Your task to perform on an android device: change the clock display to show seconds Image 0: 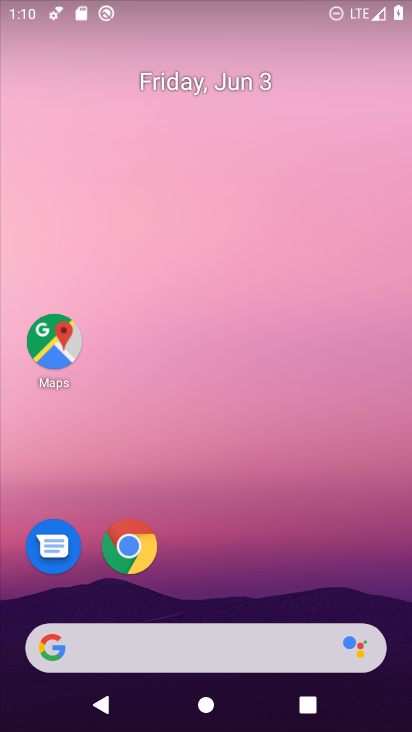
Step 0: drag from (269, 560) to (179, 69)
Your task to perform on an android device: change the clock display to show seconds Image 1: 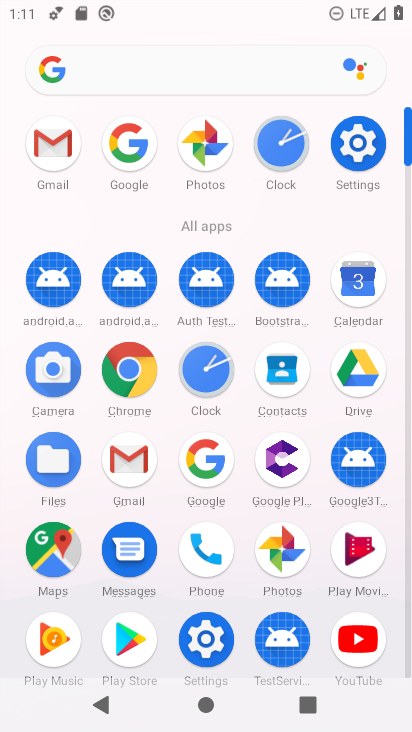
Step 1: click (282, 145)
Your task to perform on an android device: change the clock display to show seconds Image 2: 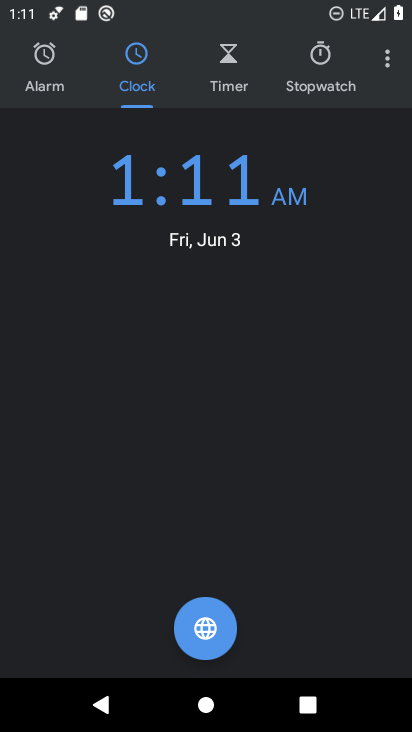
Step 2: click (388, 61)
Your task to perform on an android device: change the clock display to show seconds Image 3: 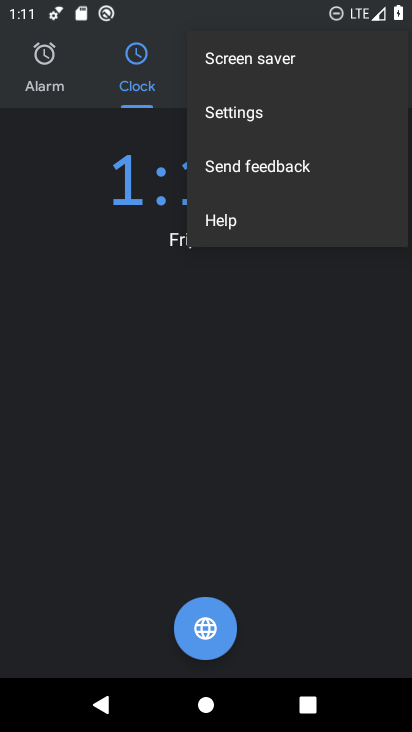
Step 3: click (260, 122)
Your task to perform on an android device: change the clock display to show seconds Image 4: 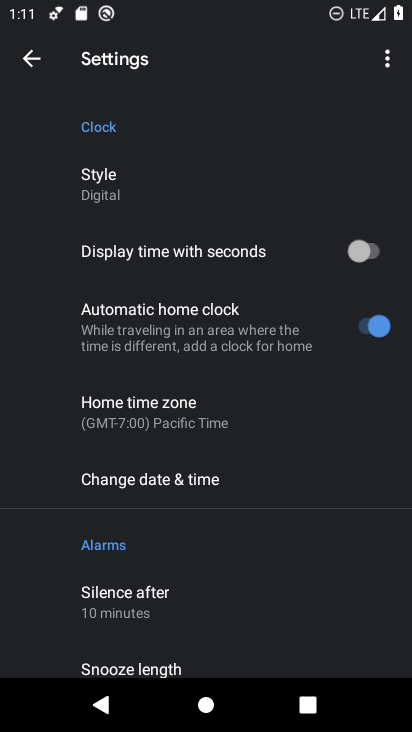
Step 4: click (354, 250)
Your task to perform on an android device: change the clock display to show seconds Image 5: 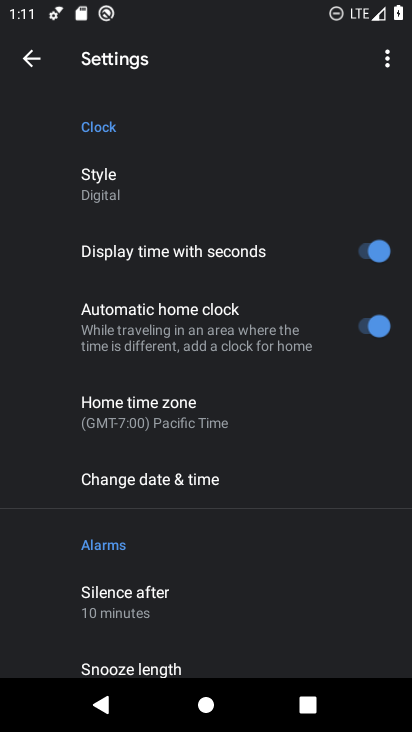
Step 5: task complete